Your task to perform on an android device: open app "Life360: Find Family & Friends" (install if not already installed) Image 0: 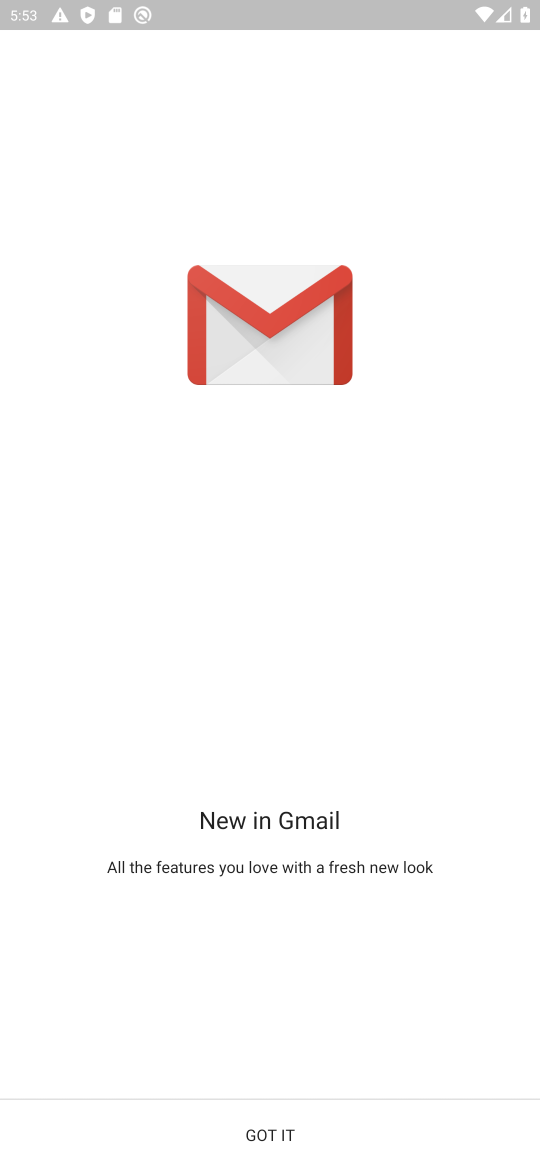
Step 0: press back button
Your task to perform on an android device: open app "Life360: Find Family & Friends" (install if not already installed) Image 1: 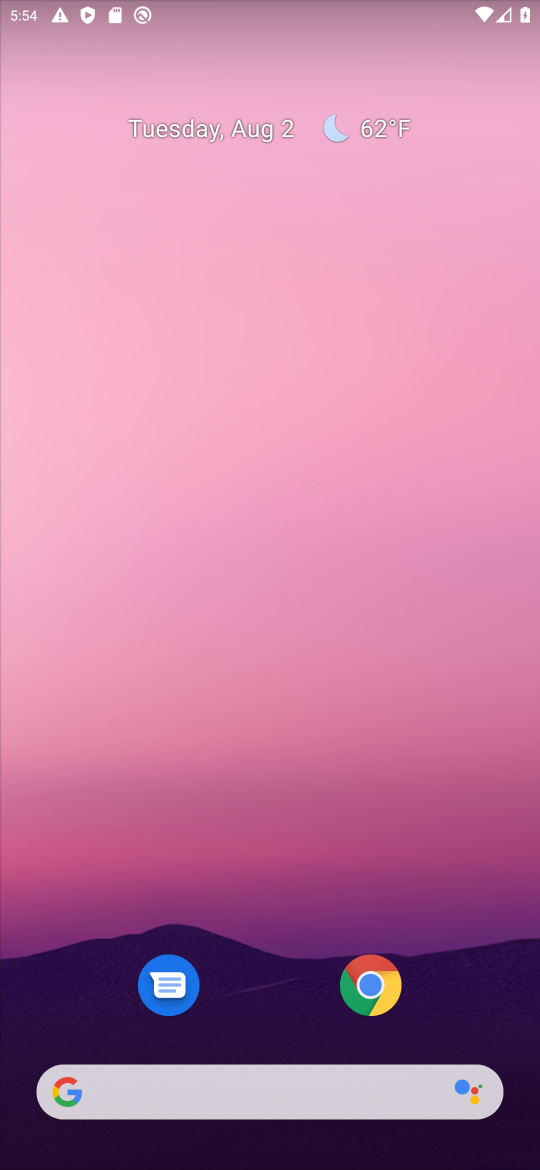
Step 1: drag from (286, 885) to (241, 277)
Your task to perform on an android device: open app "Life360: Find Family & Friends" (install if not already installed) Image 2: 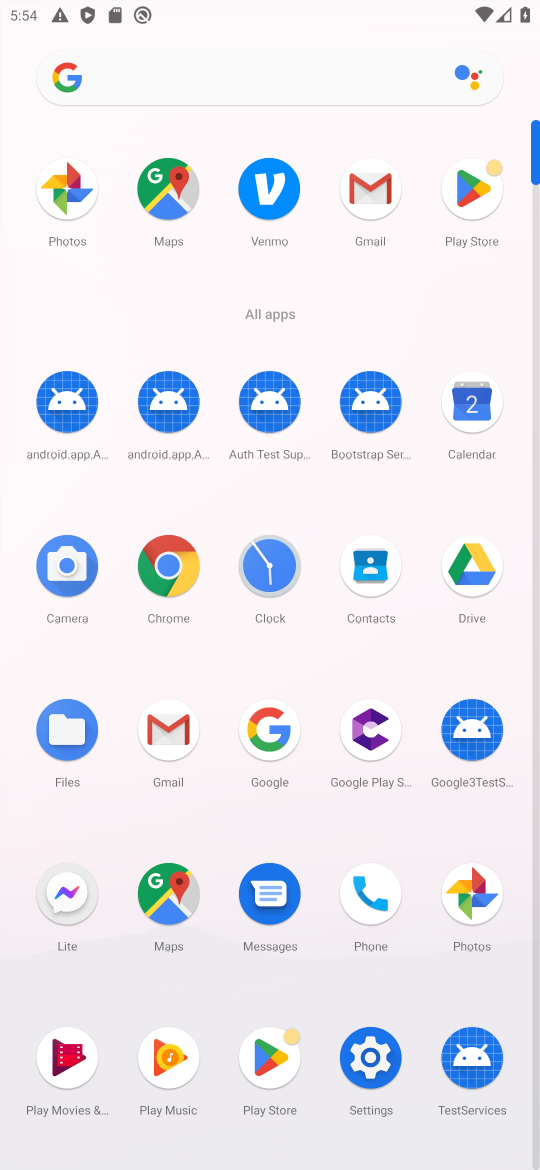
Step 2: click (456, 189)
Your task to perform on an android device: open app "Life360: Find Family & Friends" (install if not already installed) Image 3: 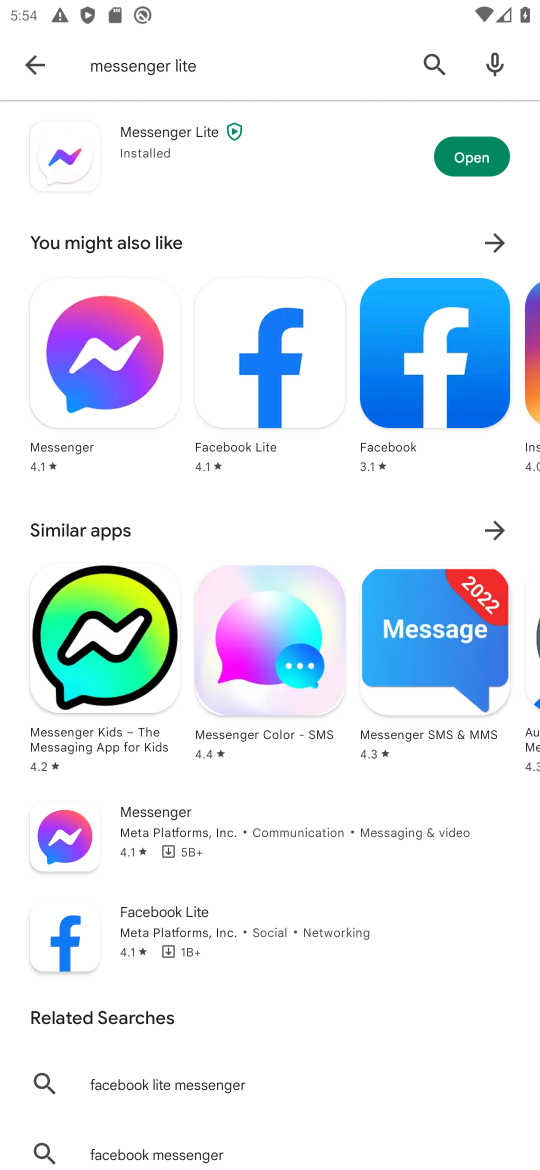
Step 3: click (436, 71)
Your task to perform on an android device: open app "Life360: Find Family & Friends" (install if not already installed) Image 4: 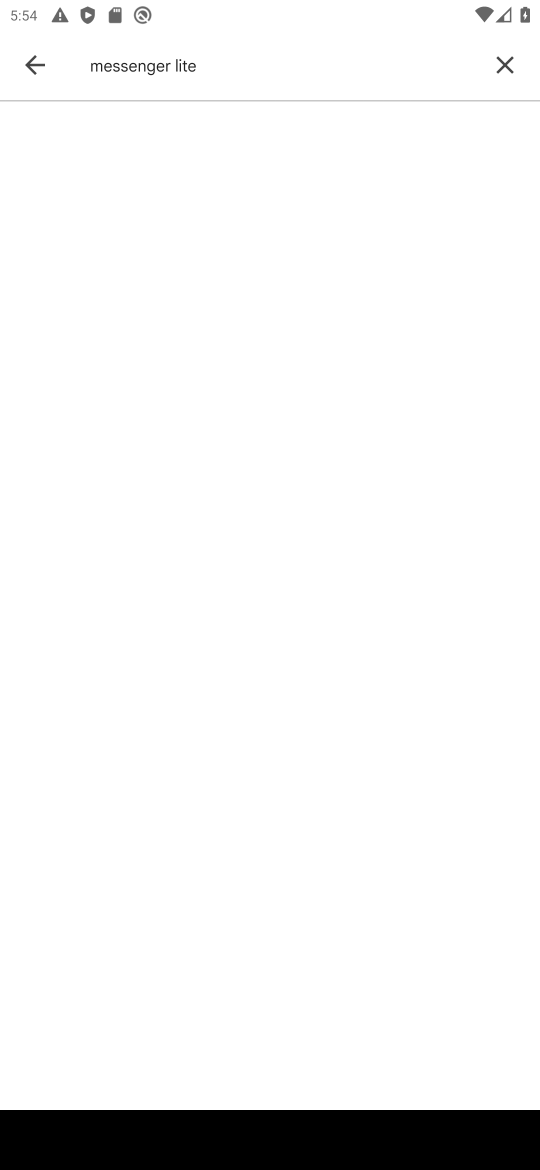
Step 4: click (498, 68)
Your task to perform on an android device: open app "Life360: Find Family & Friends" (install if not already installed) Image 5: 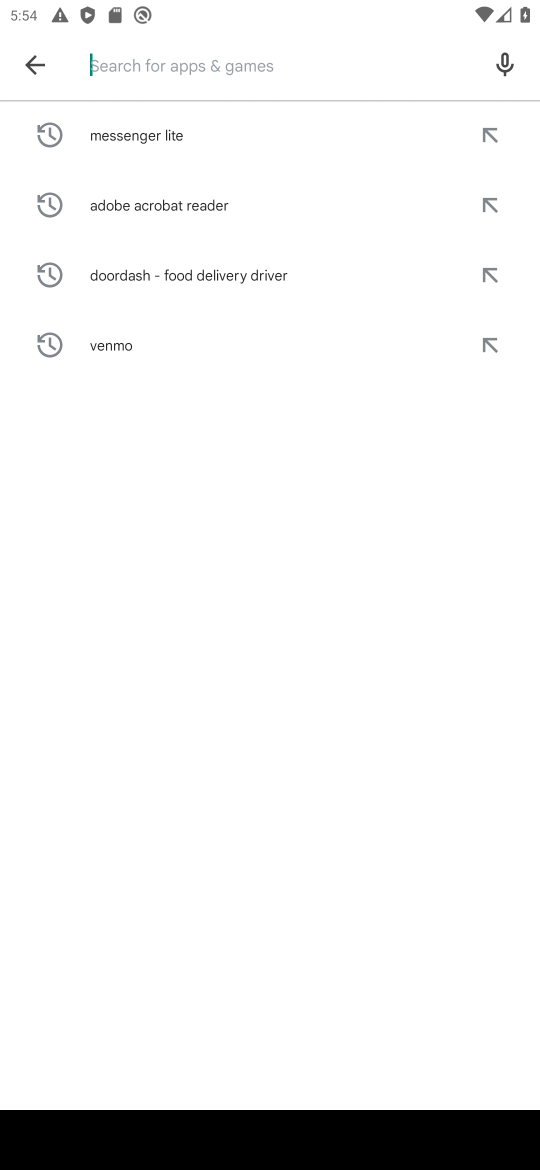
Step 5: type "Life360: Find Family & Friends"
Your task to perform on an android device: open app "Life360: Find Family & Friends" (install if not already installed) Image 6: 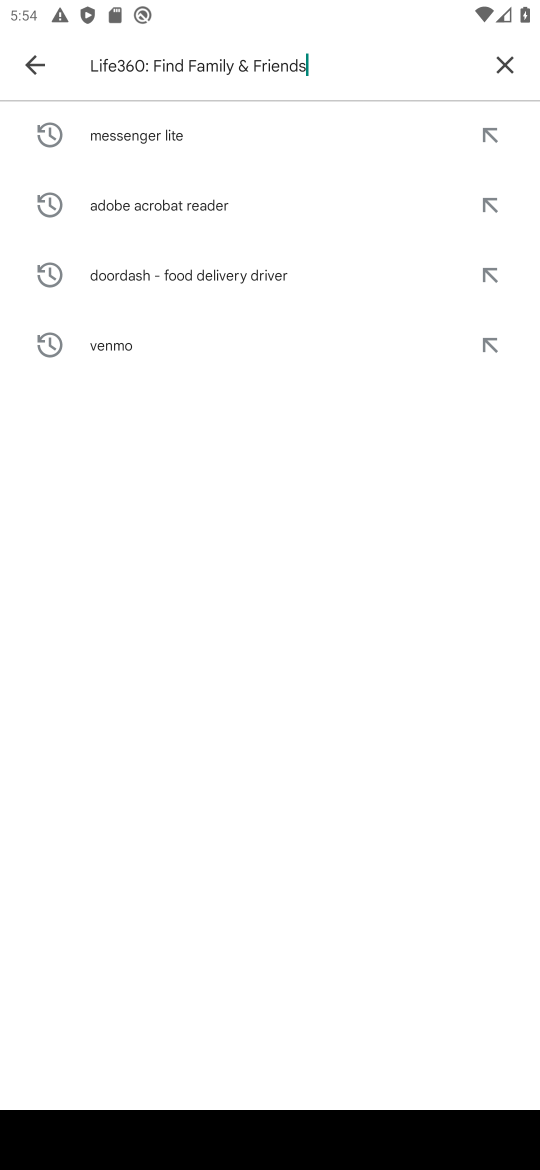
Step 6: type ""
Your task to perform on an android device: open app "Life360: Find Family & Friends" (install if not already installed) Image 7: 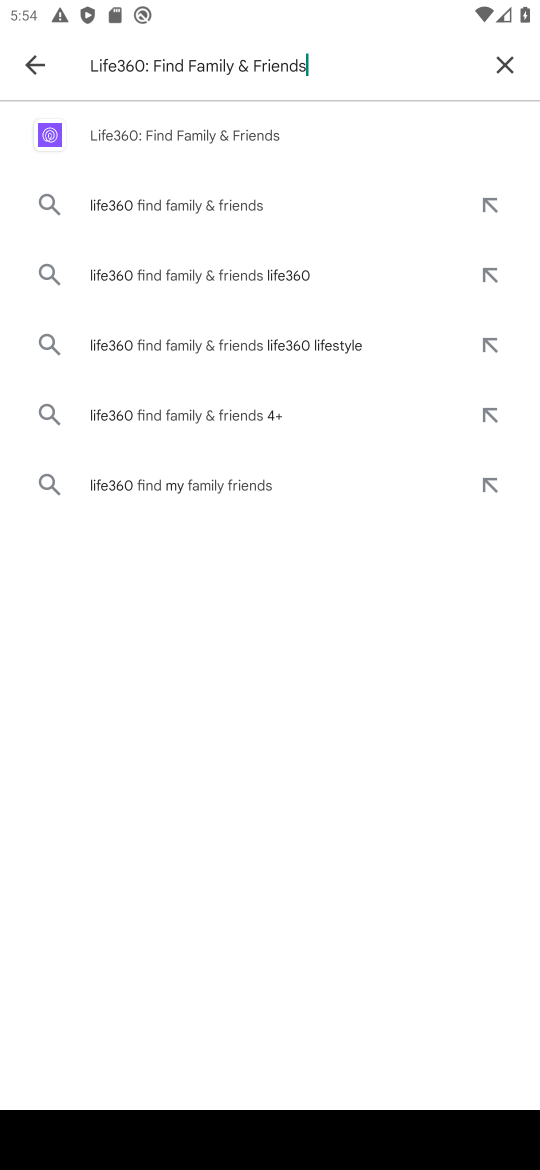
Step 7: click (224, 146)
Your task to perform on an android device: open app "Life360: Find Family & Friends" (install if not already installed) Image 8: 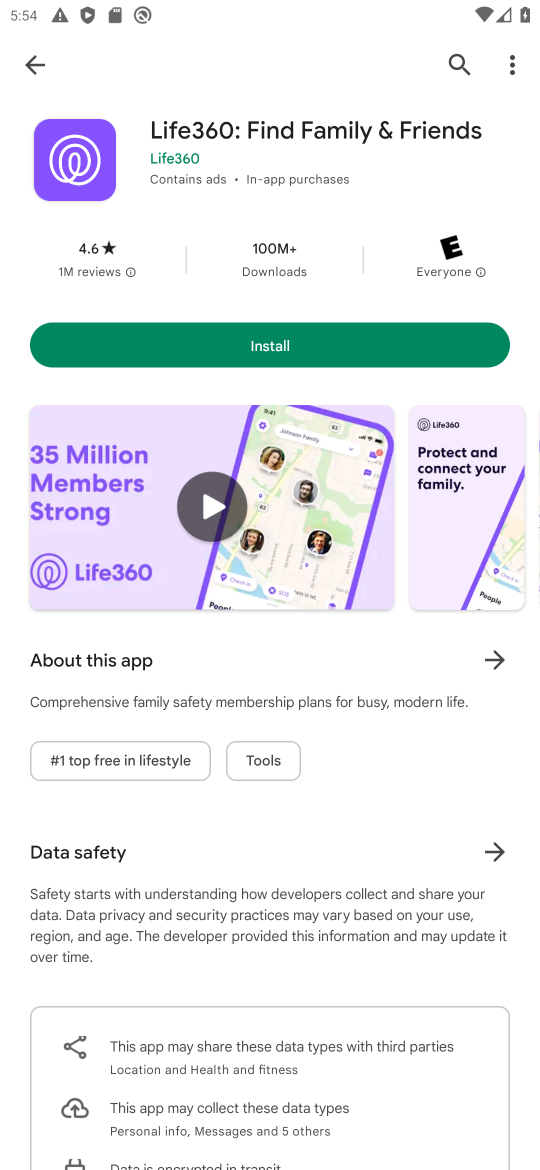
Step 8: click (318, 347)
Your task to perform on an android device: open app "Life360: Find Family & Friends" (install if not already installed) Image 9: 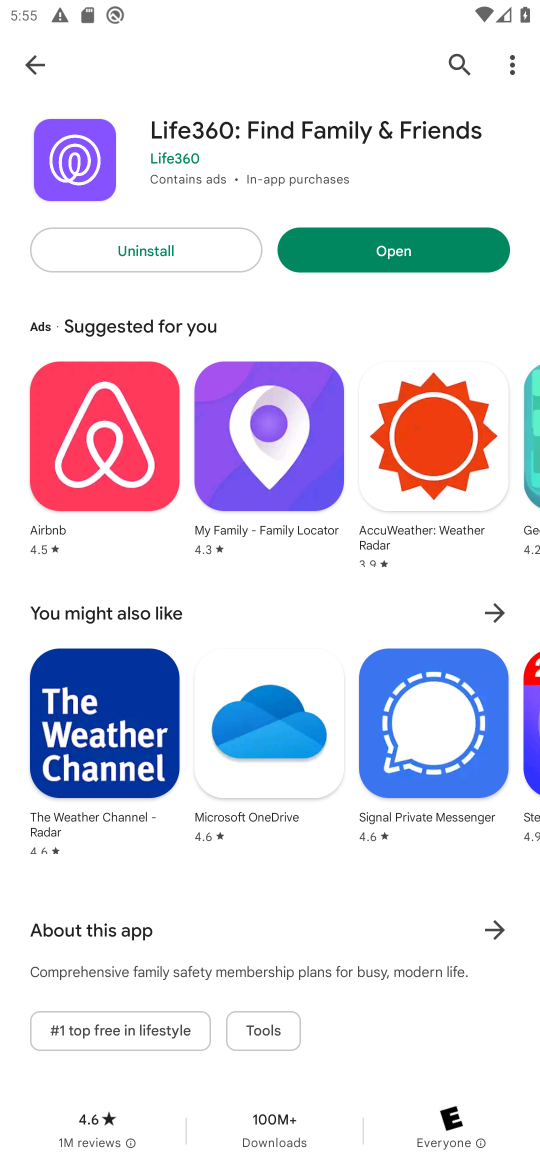
Step 9: click (357, 248)
Your task to perform on an android device: open app "Life360: Find Family & Friends" (install if not already installed) Image 10: 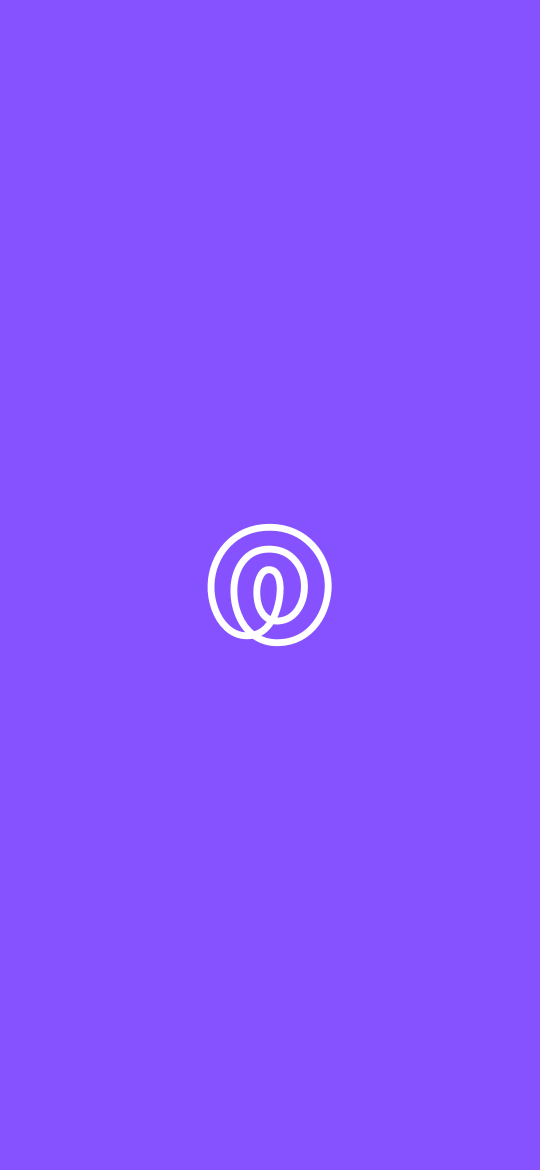
Step 10: task complete